Your task to perform on an android device: Show me recent news Image 0: 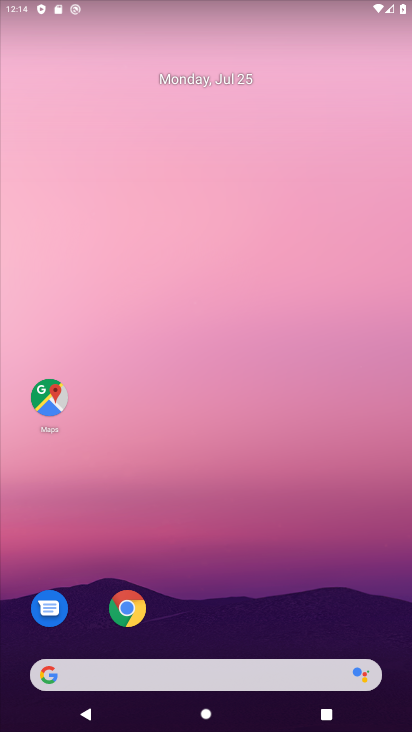
Step 0: drag from (177, 669) to (200, 184)
Your task to perform on an android device: Show me recent news Image 1: 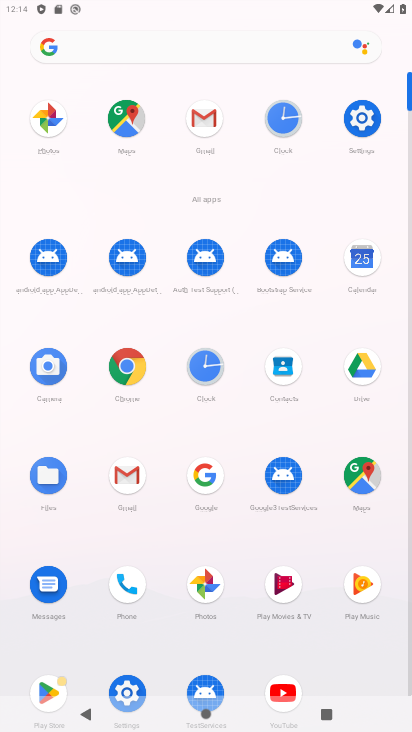
Step 1: click (200, 472)
Your task to perform on an android device: Show me recent news Image 2: 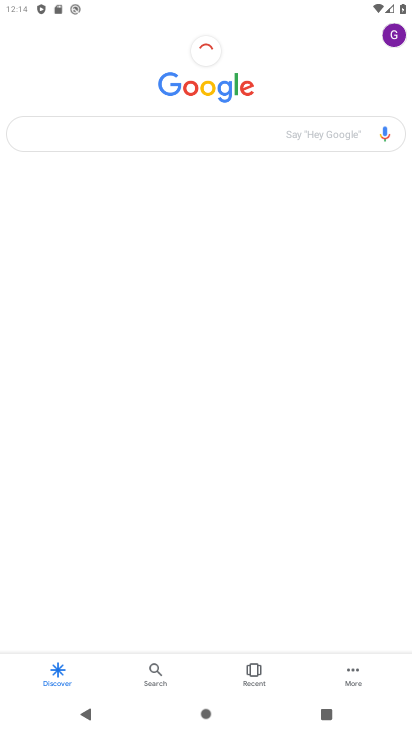
Step 2: click (271, 135)
Your task to perform on an android device: Show me recent news Image 3: 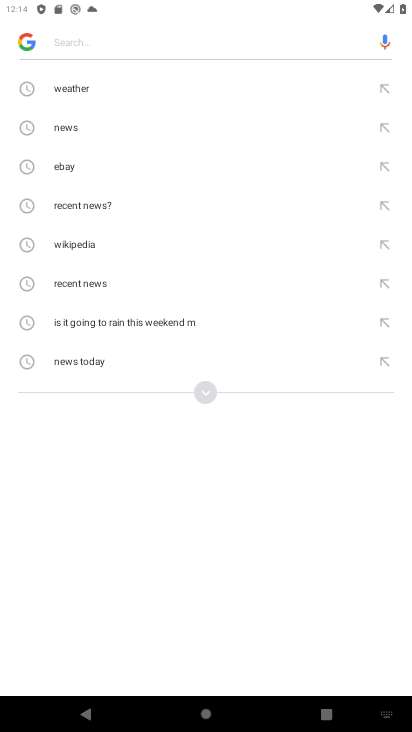
Step 3: type "recent news"
Your task to perform on an android device: Show me recent news Image 4: 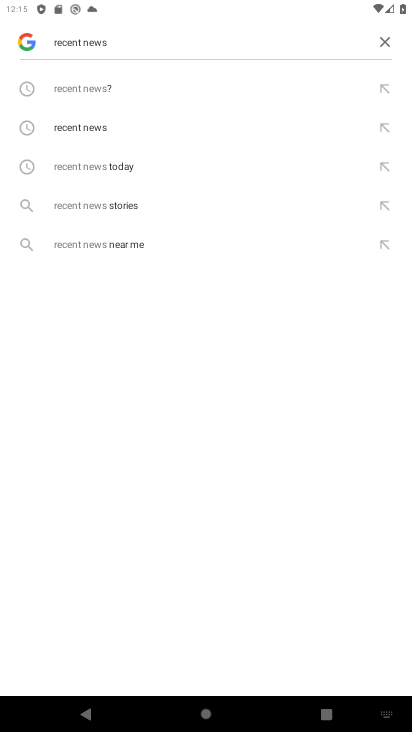
Step 4: click (72, 130)
Your task to perform on an android device: Show me recent news Image 5: 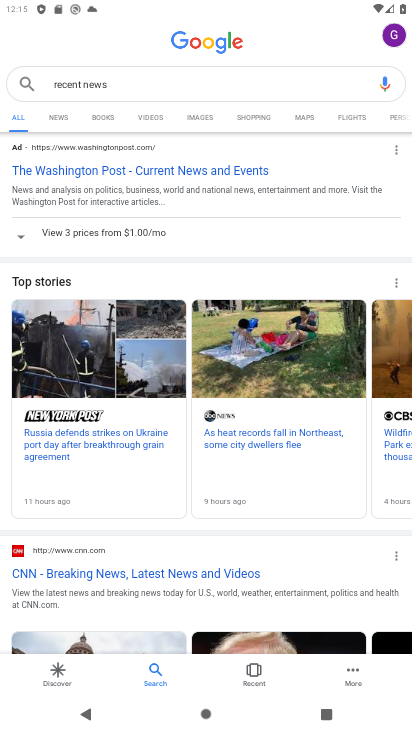
Step 5: click (69, 410)
Your task to perform on an android device: Show me recent news Image 6: 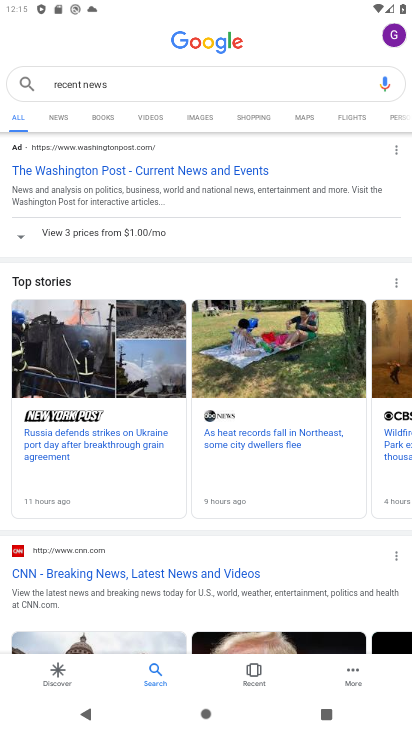
Step 6: click (101, 438)
Your task to perform on an android device: Show me recent news Image 7: 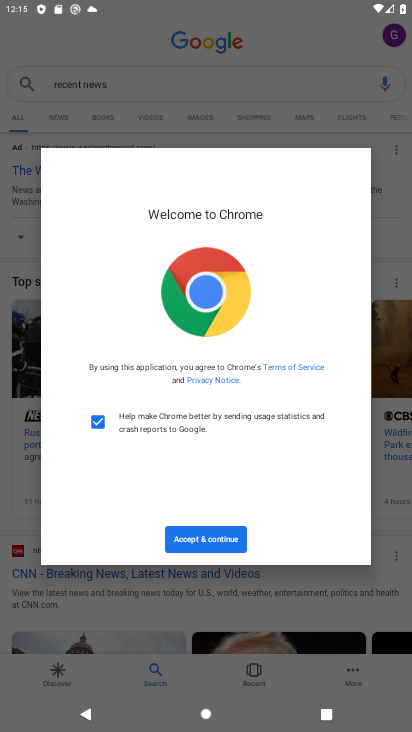
Step 7: click (214, 546)
Your task to perform on an android device: Show me recent news Image 8: 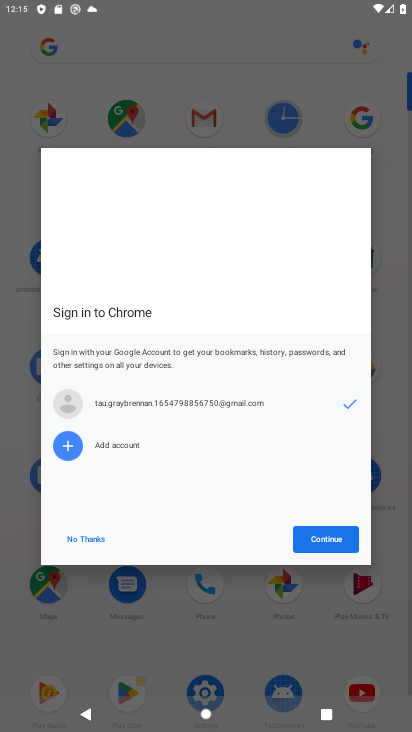
Step 8: click (318, 534)
Your task to perform on an android device: Show me recent news Image 9: 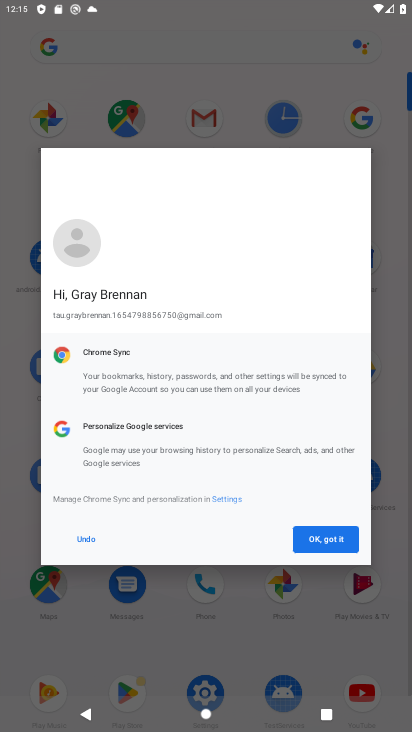
Step 9: click (327, 547)
Your task to perform on an android device: Show me recent news Image 10: 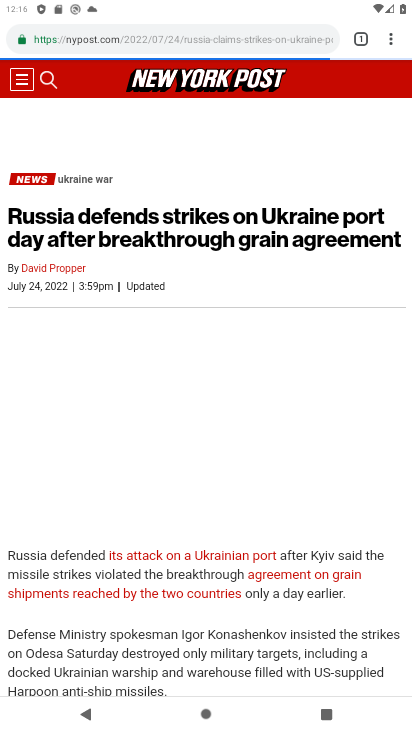
Step 10: task complete